Your task to perform on an android device: visit the assistant section in the google photos Image 0: 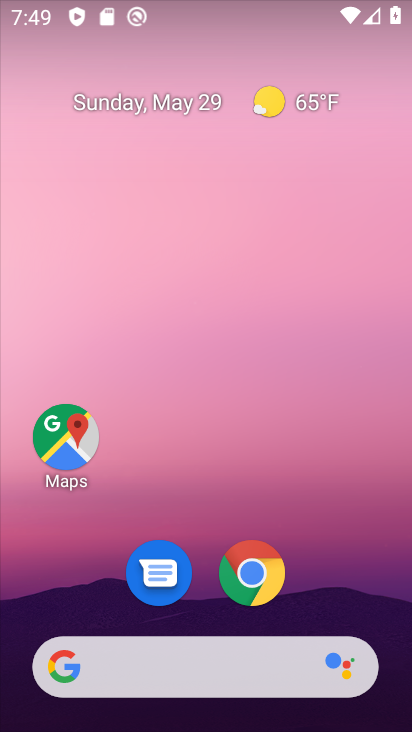
Step 0: drag from (185, 601) to (189, 209)
Your task to perform on an android device: visit the assistant section in the google photos Image 1: 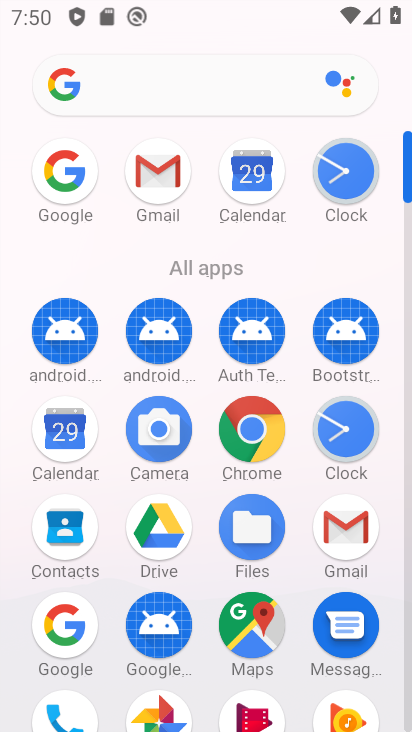
Step 1: drag from (174, 598) to (165, 349)
Your task to perform on an android device: visit the assistant section in the google photos Image 2: 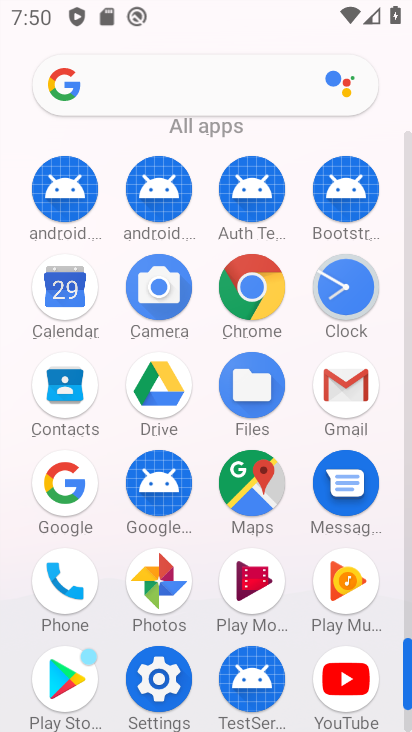
Step 2: click (166, 584)
Your task to perform on an android device: visit the assistant section in the google photos Image 3: 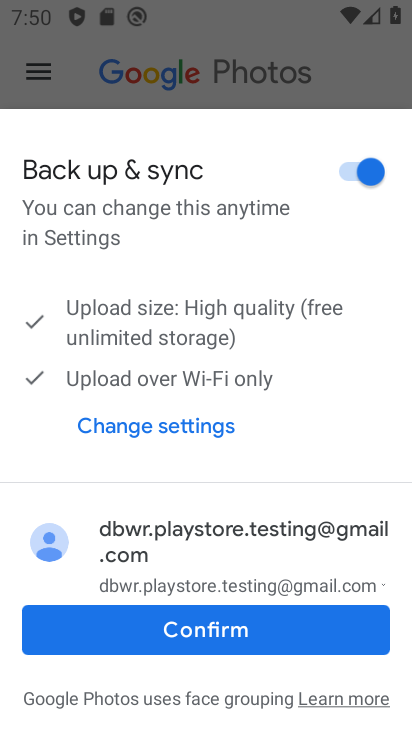
Step 3: click (203, 624)
Your task to perform on an android device: visit the assistant section in the google photos Image 4: 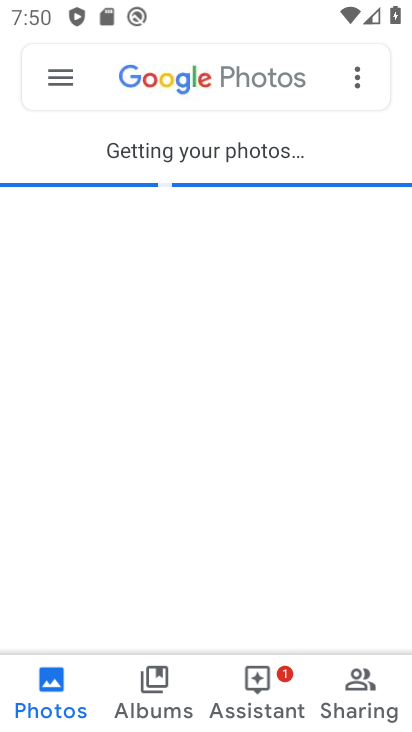
Step 4: click (220, 671)
Your task to perform on an android device: visit the assistant section in the google photos Image 5: 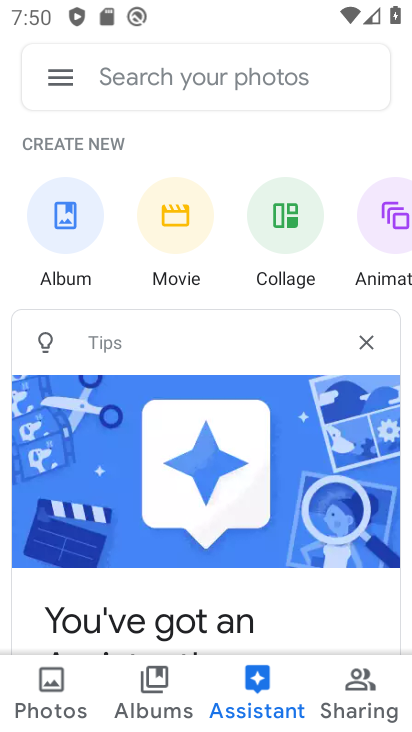
Step 5: task complete